Your task to perform on an android device: toggle javascript in the chrome app Image 0: 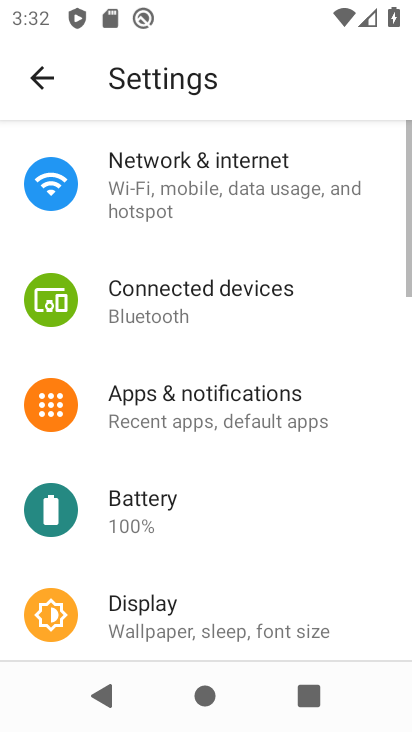
Step 0: press home button
Your task to perform on an android device: toggle javascript in the chrome app Image 1: 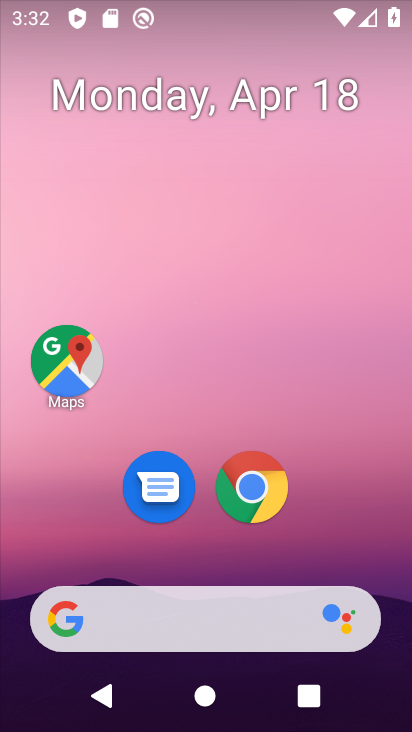
Step 1: drag from (212, 554) to (340, 0)
Your task to perform on an android device: toggle javascript in the chrome app Image 2: 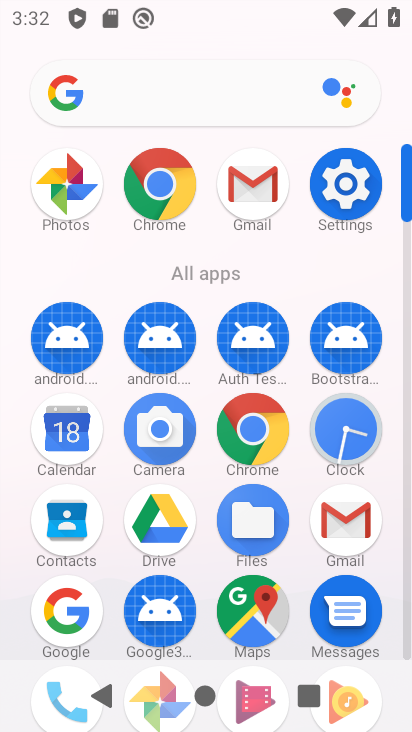
Step 2: click (146, 187)
Your task to perform on an android device: toggle javascript in the chrome app Image 3: 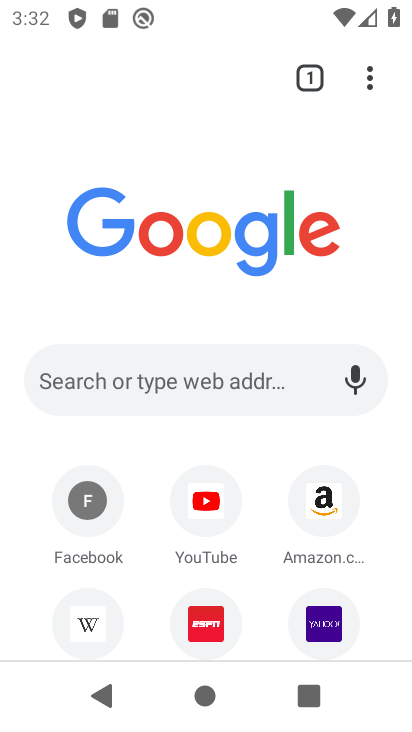
Step 3: click (372, 78)
Your task to perform on an android device: toggle javascript in the chrome app Image 4: 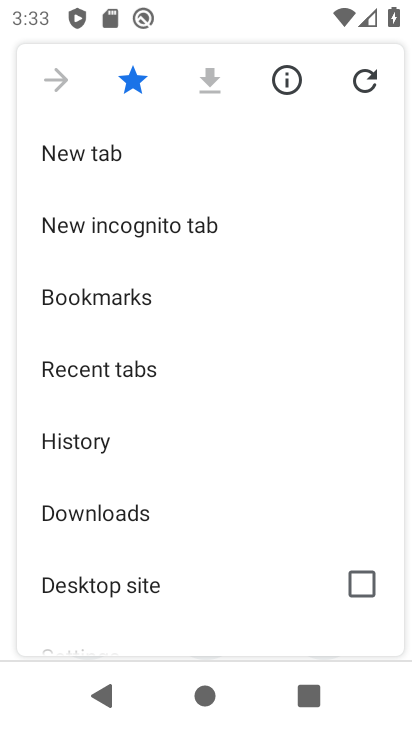
Step 4: drag from (104, 518) to (93, 109)
Your task to perform on an android device: toggle javascript in the chrome app Image 5: 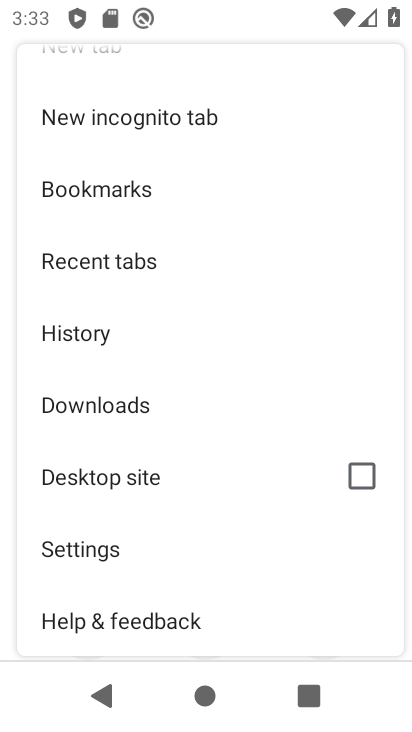
Step 5: click (92, 545)
Your task to perform on an android device: toggle javascript in the chrome app Image 6: 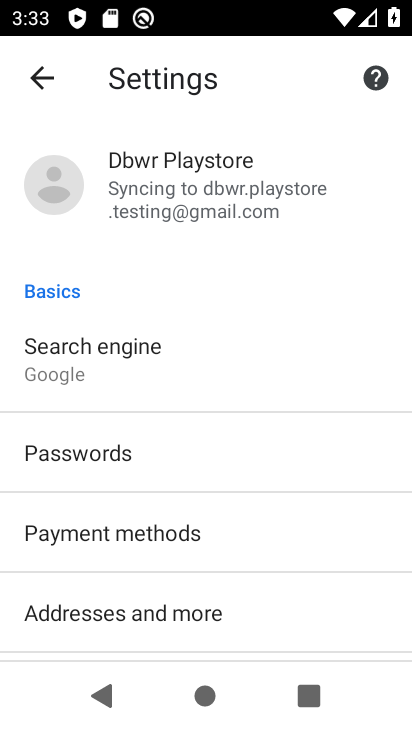
Step 6: drag from (108, 525) to (115, 137)
Your task to perform on an android device: toggle javascript in the chrome app Image 7: 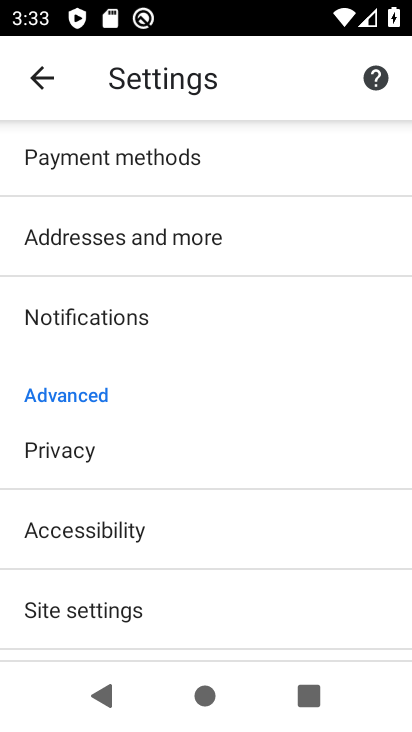
Step 7: click (122, 604)
Your task to perform on an android device: toggle javascript in the chrome app Image 8: 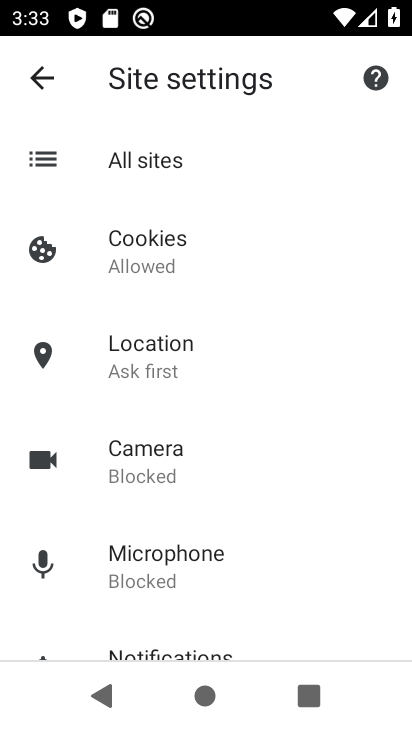
Step 8: drag from (180, 513) to (169, 292)
Your task to perform on an android device: toggle javascript in the chrome app Image 9: 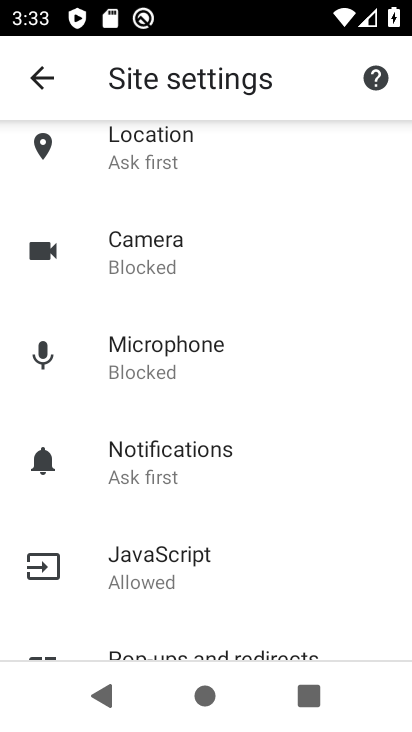
Step 9: click (165, 541)
Your task to perform on an android device: toggle javascript in the chrome app Image 10: 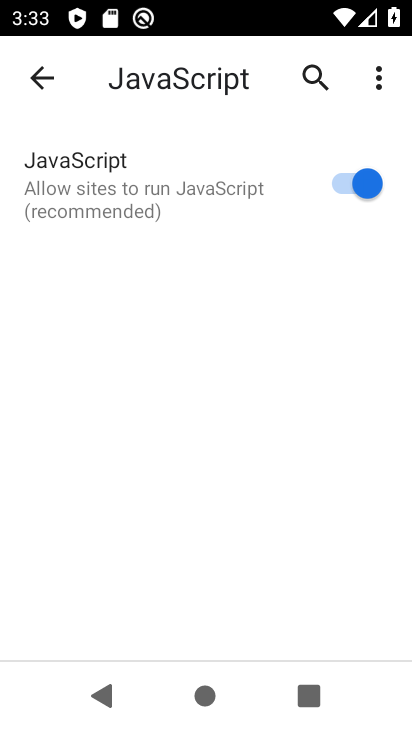
Step 10: click (358, 185)
Your task to perform on an android device: toggle javascript in the chrome app Image 11: 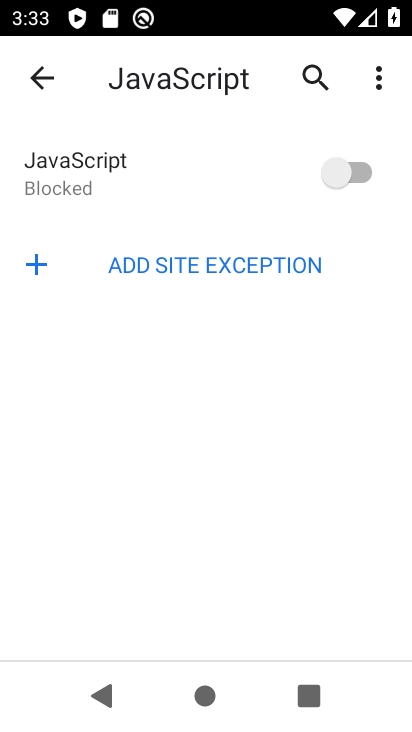
Step 11: task complete